Your task to perform on an android device: Do I have any events this weekend? Image 0: 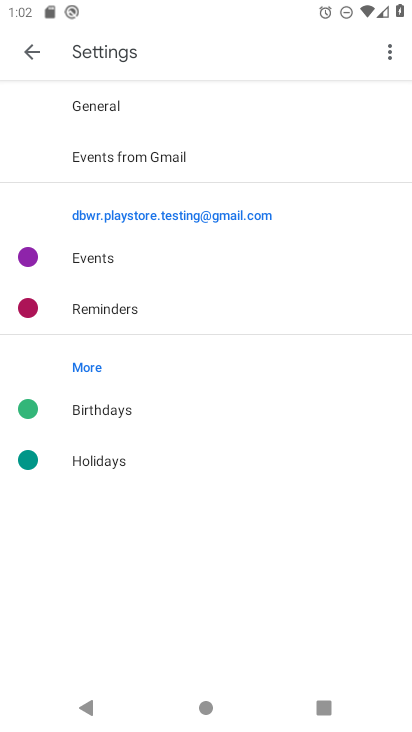
Step 0: click (44, 49)
Your task to perform on an android device: Do I have any events this weekend? Image 1: 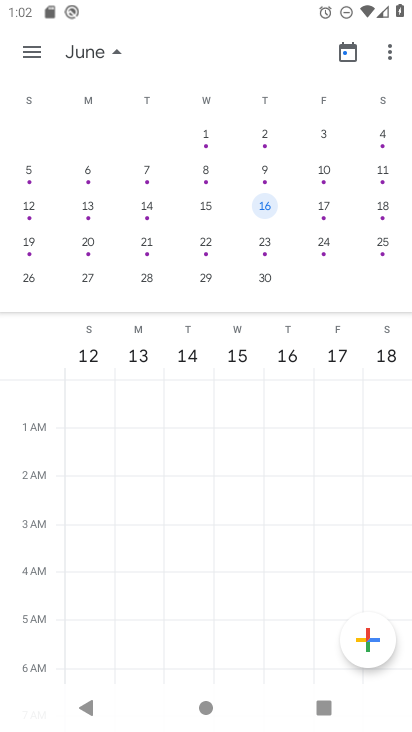
Step 1: click (97, 50)
Your task to perform on an android device: Do I have any events this weekend? Image 2: 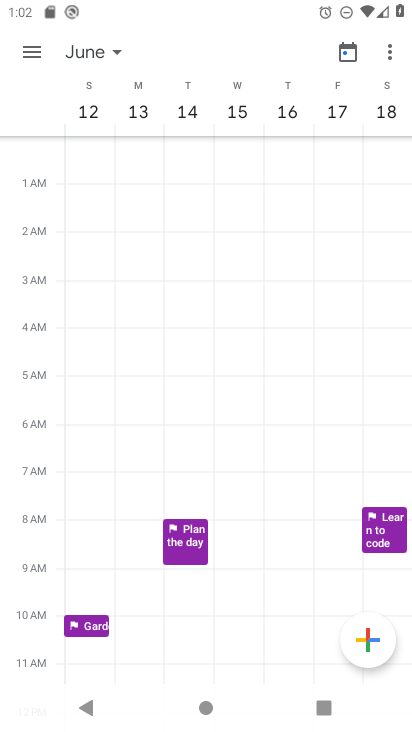
Step 2: click (97, 50)
Your task to perform on an android device: Do I have any events this weekend? Image 3: 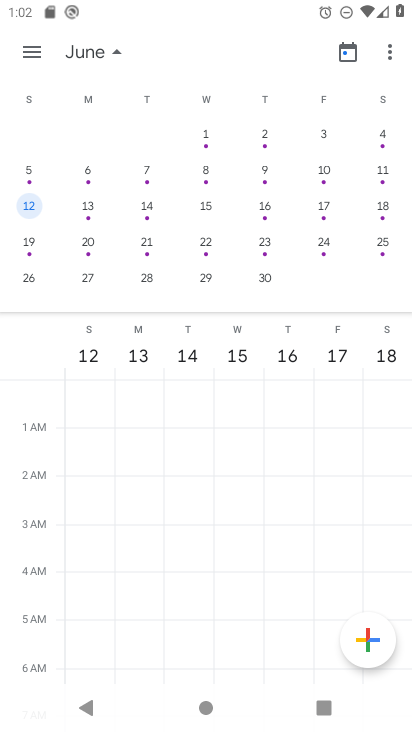
Step 3: drag from (44, 133) to (348, 292)
Your task to perform on an android device: Do I have any events this weekend? Image 4: 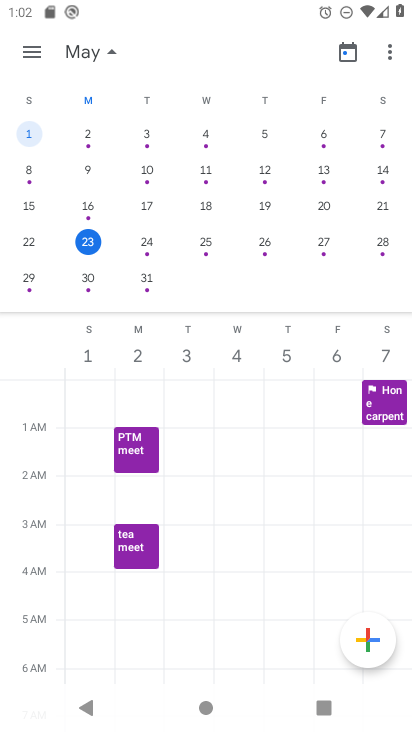
Step 4: click (389, 248)
Your task to perform on an android device: Do I have any events this weekend? Image 5: 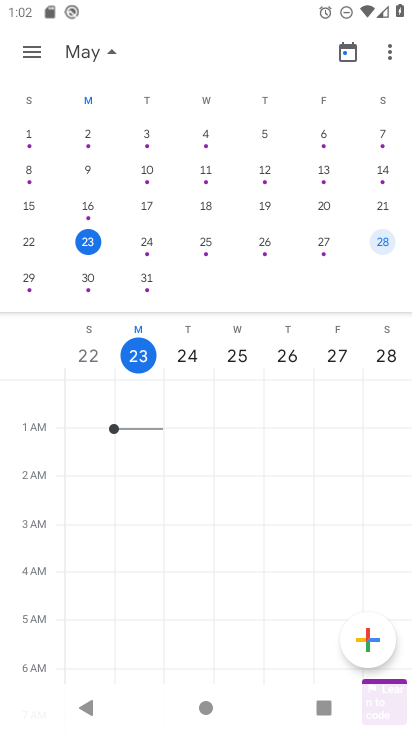
Step 5: task complete